Your task to perform on an android device: Add macbook pro to the cart on amazon.com Image 0: 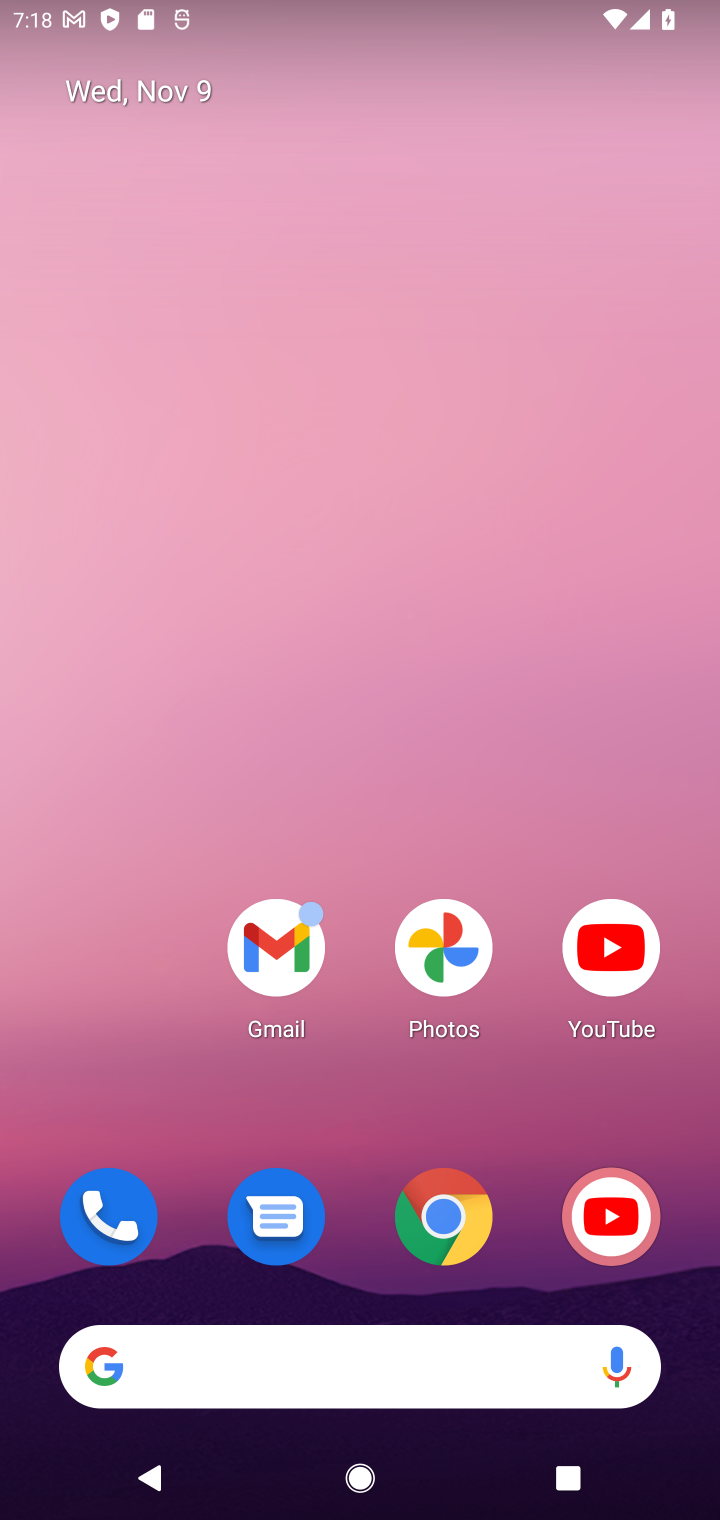
Step 0: drag from (351, 1144) to (370, 133)
Your task to perform on an android device: Add macbook pro to the cart on amazon.com Image 1: 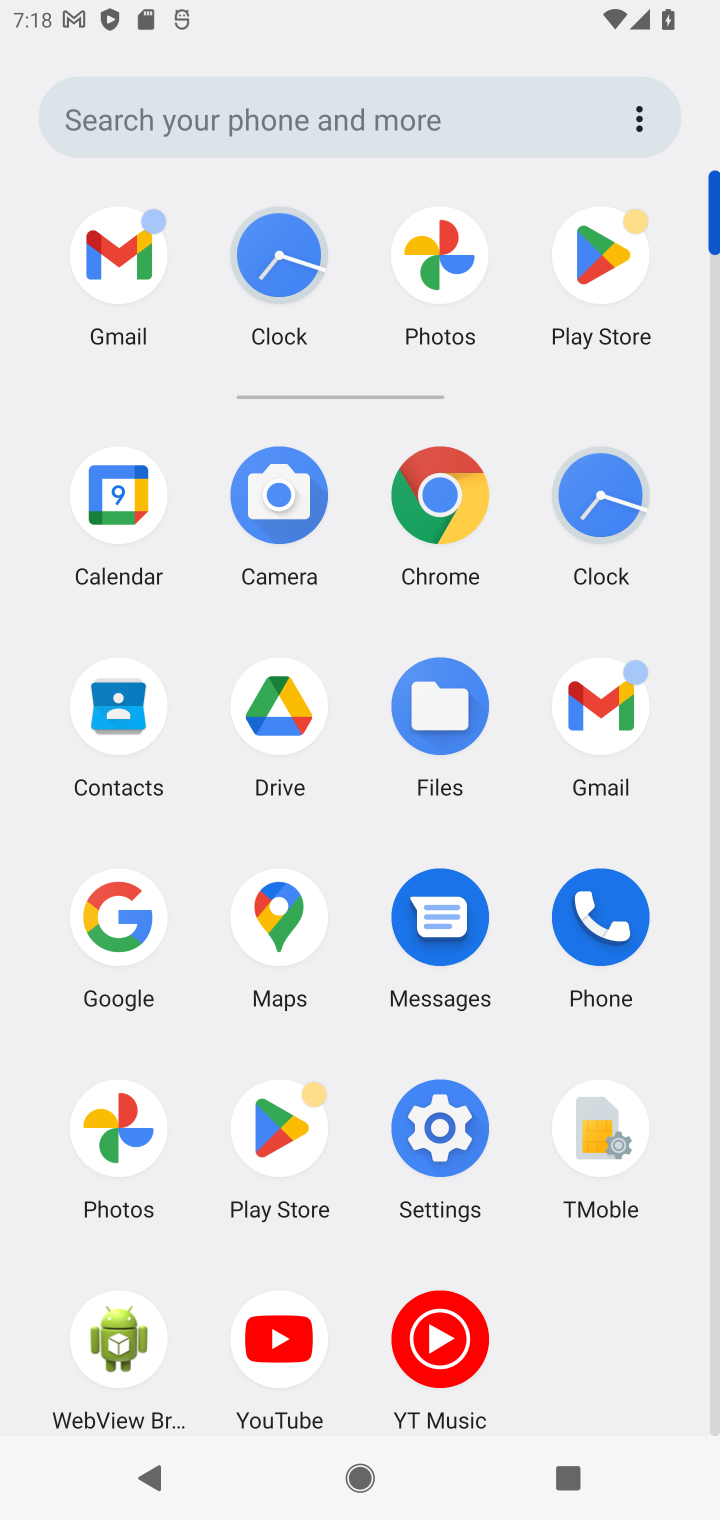
Step 1: click (454, 500)
Your task to perform on an android device: Add macbook pro to the cart on amazon.com Image 2: 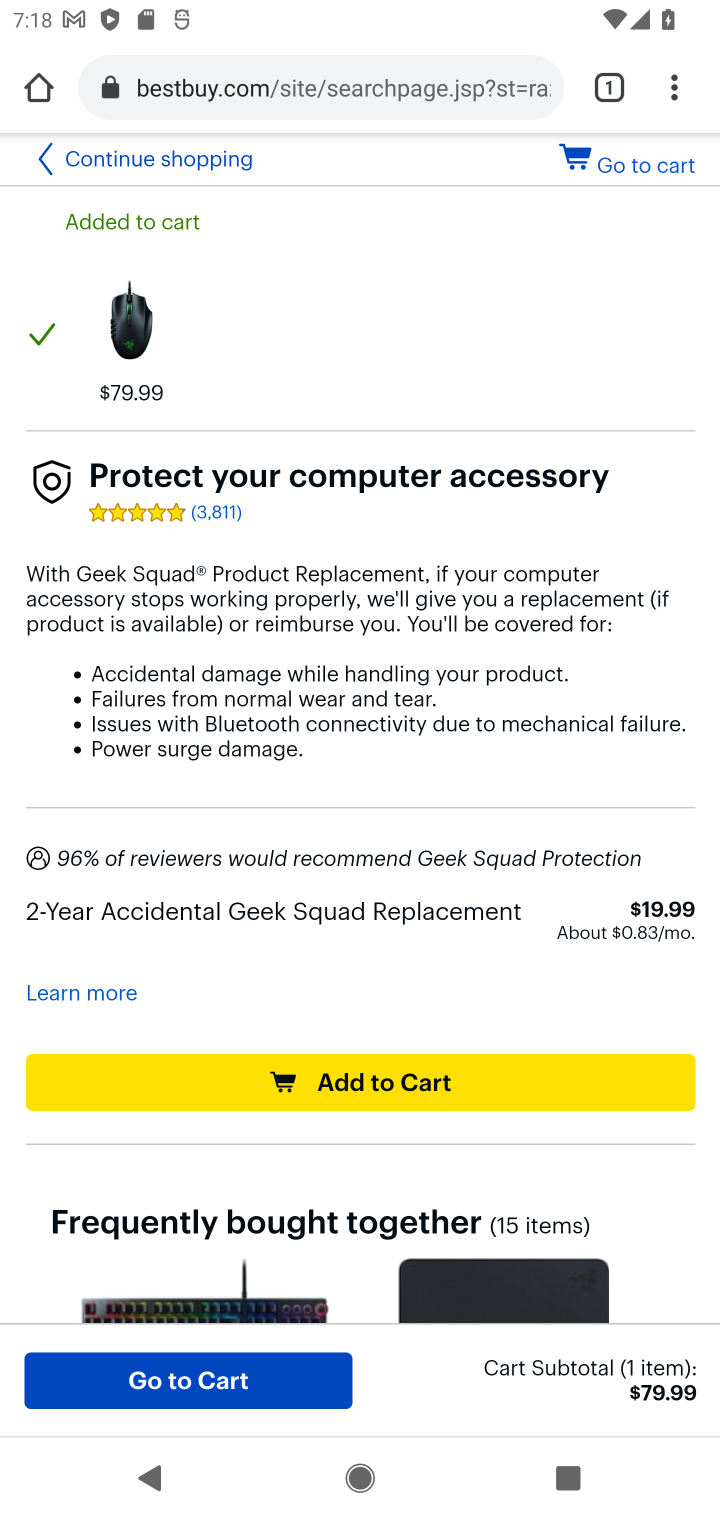
Step 2: click (355, 79)
Your task to perform on an android device: Add macbook pro to the cart on amazon.com Image 3: 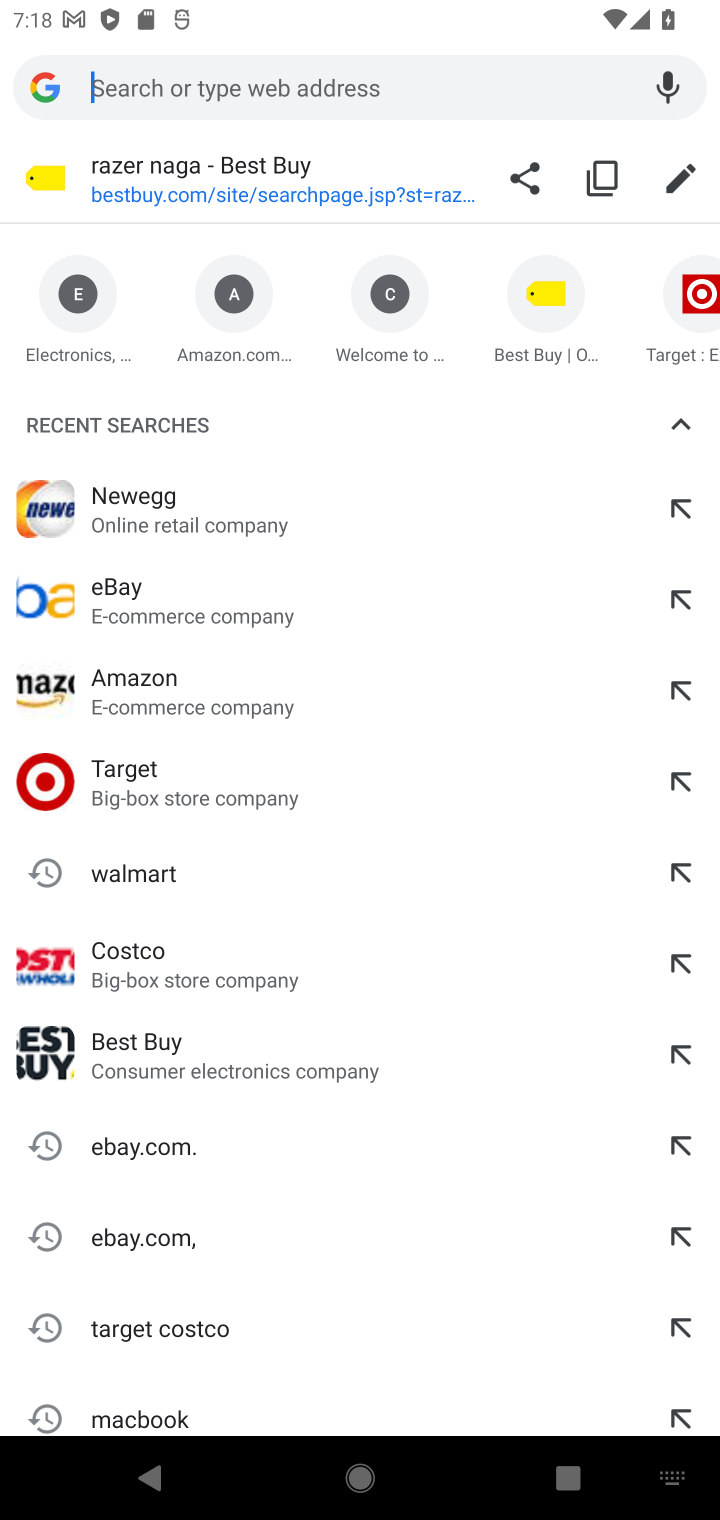
Step 3: type "amazon.com"
Your task to perform on an android device: Add macbook pro to the cart on amazon.com Image 4: 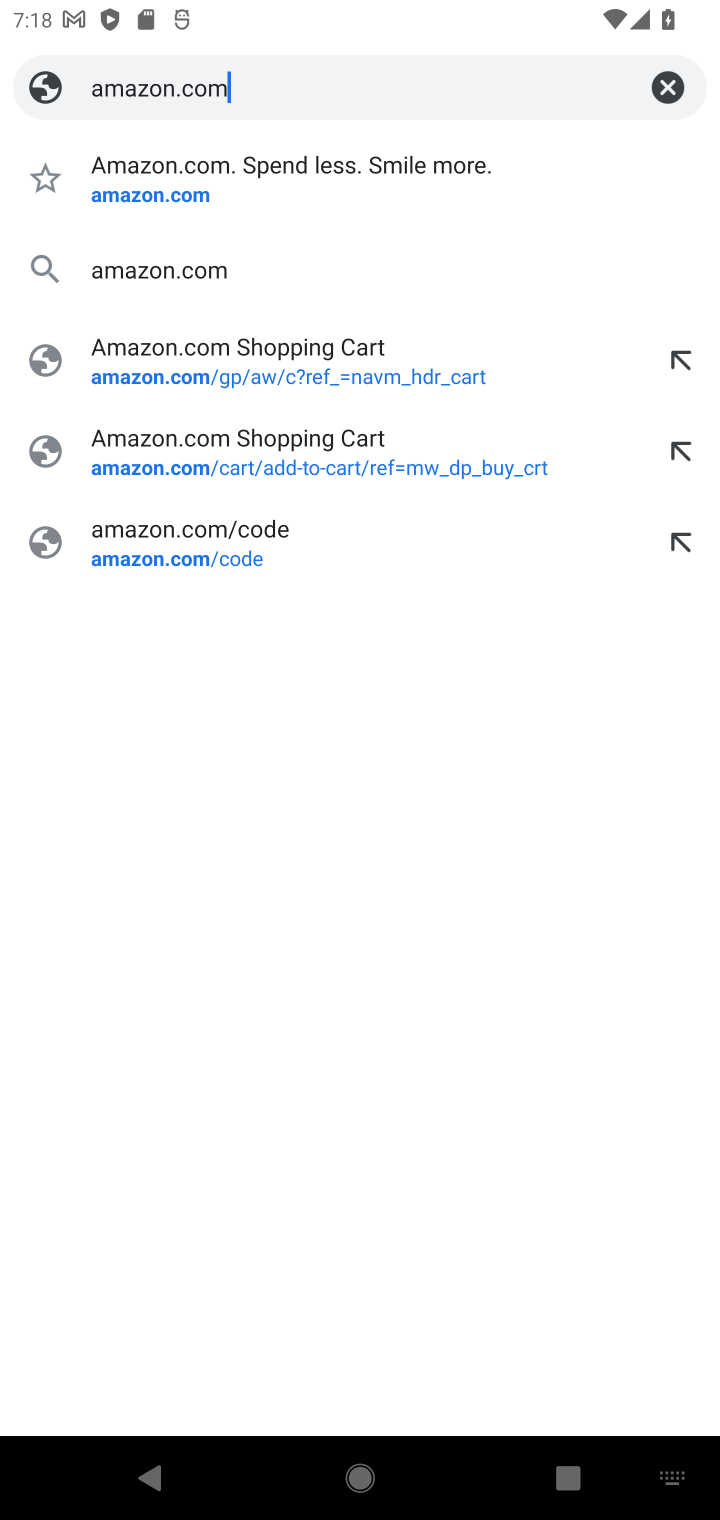
Step 4: press enter
Your task to perform on an android device: Add macbook pro to the cart on amazon.com Image 5: 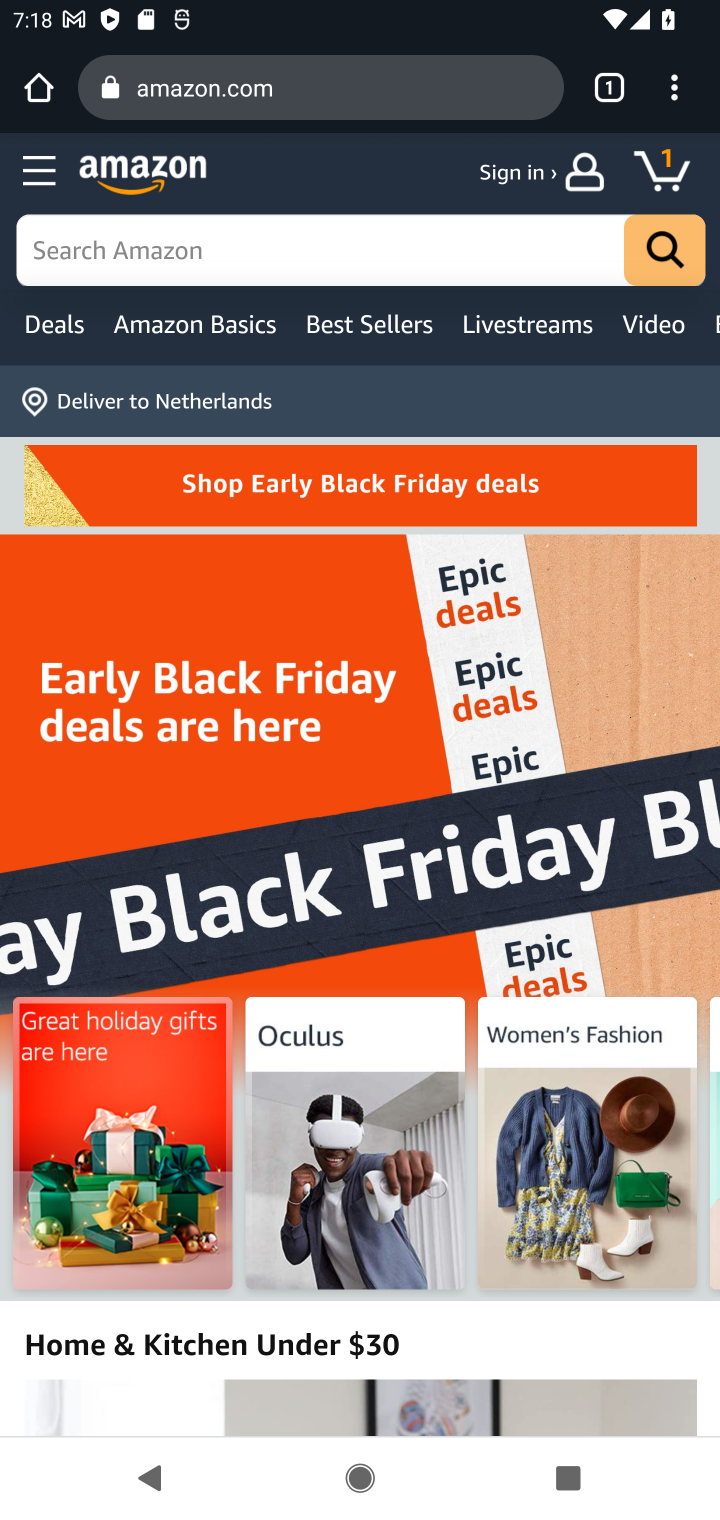
Step 5: click (424, 244)
Your task to perform on an android device: Add macbook pro to the cart on amazon.com Image 6: 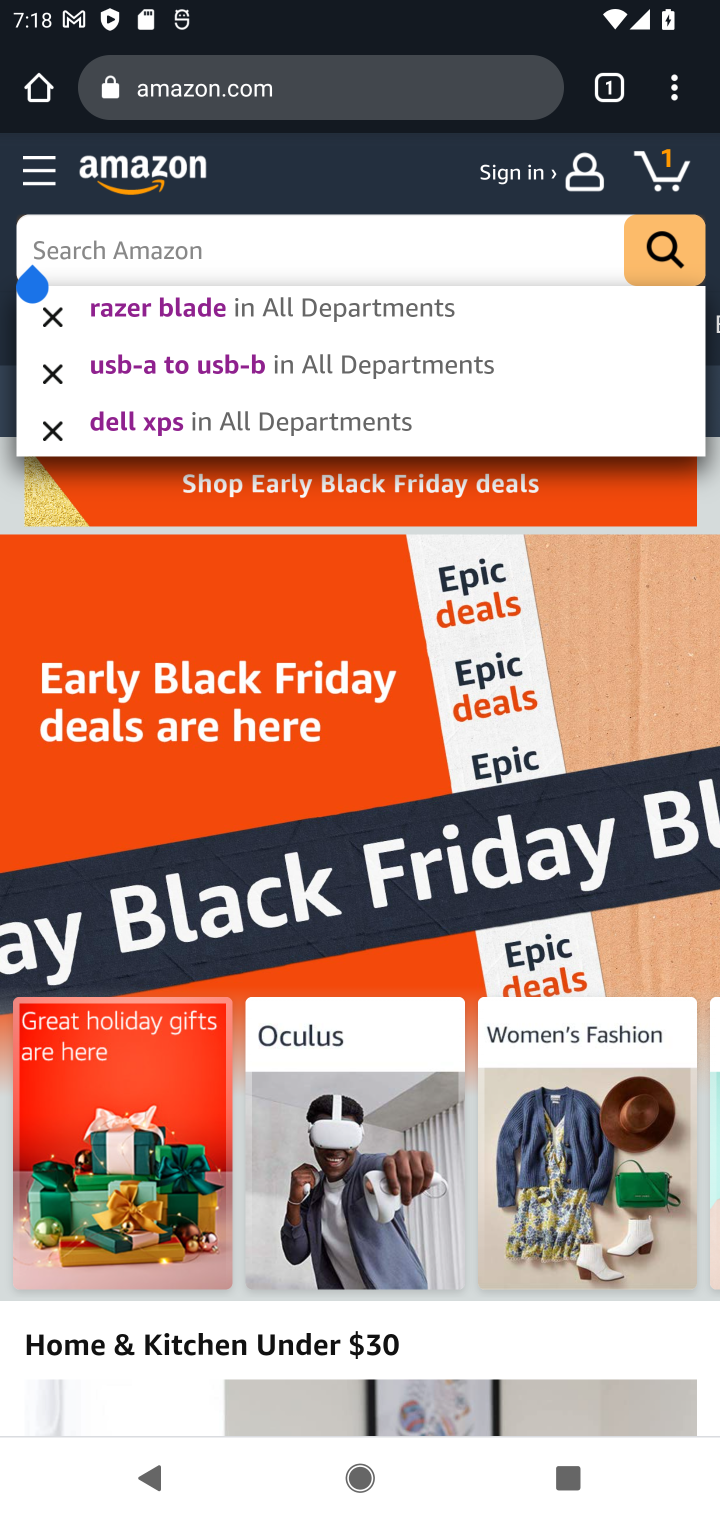
Step 6: type "macbook pro"
Your task to perform on an android device: Add macbook pro to the cart on amazon.com Image 7: 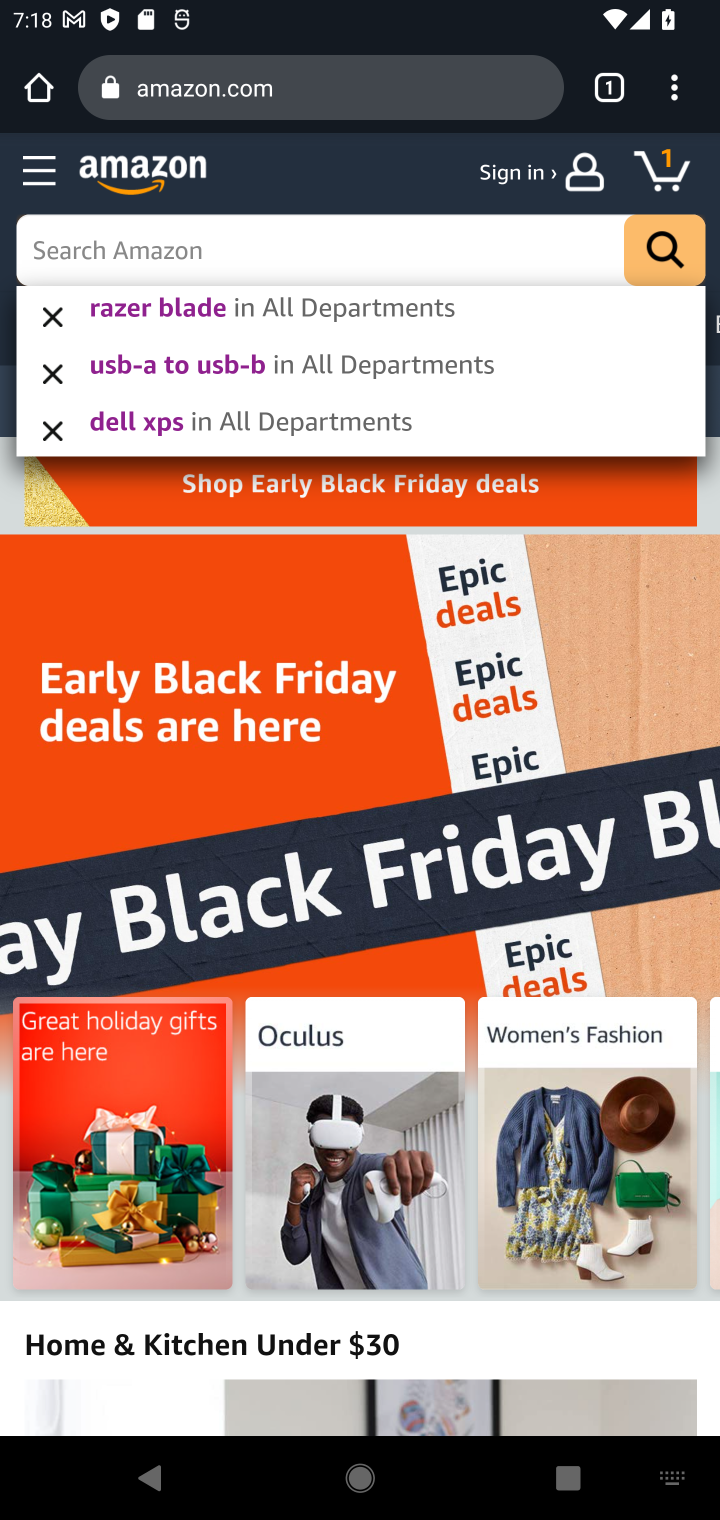
Step 7: press enter
Your task to perform on an android device: Add macbook pro to the cart on amazon.com Image 8: 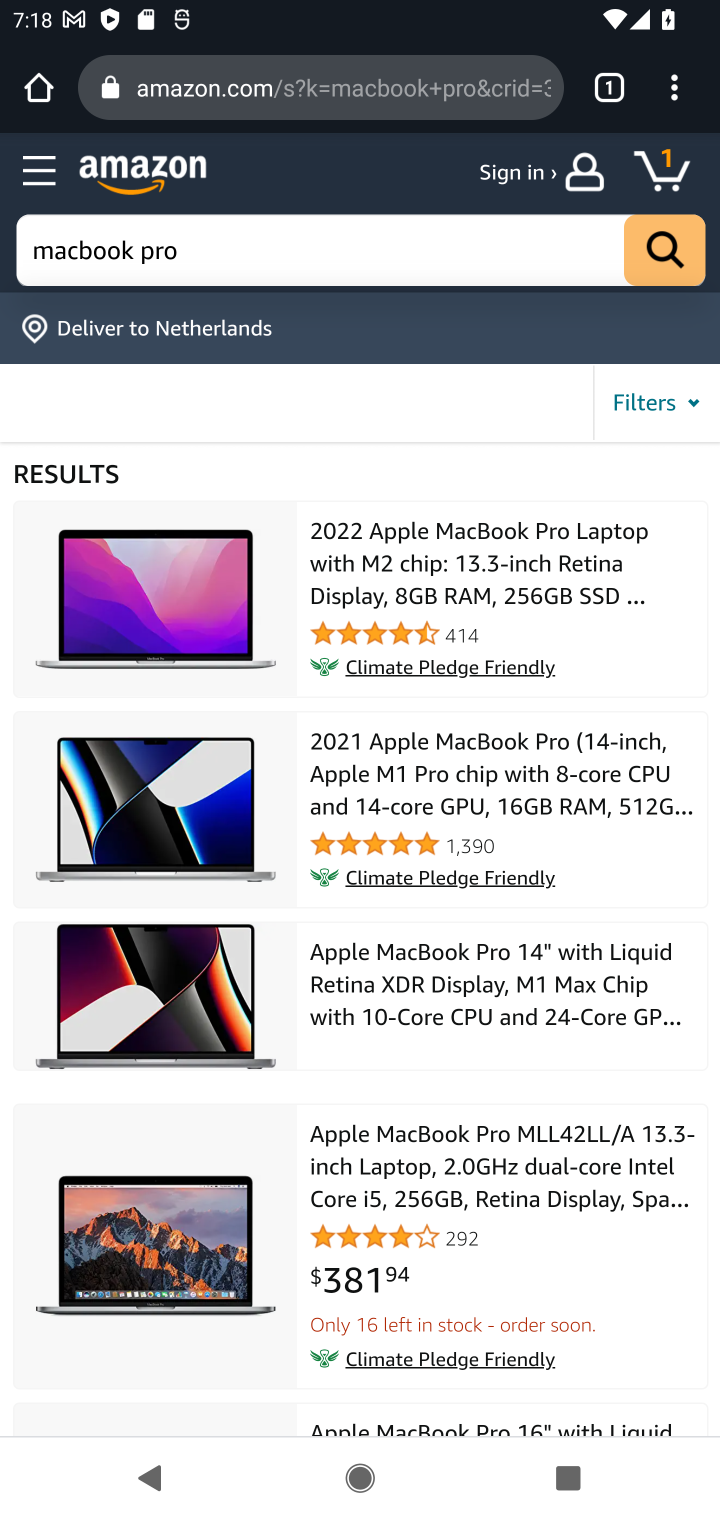
Step 8: click (524, 560)
Your task to perform on an android device: Add macbook pro to the cart on amazon.com Image 9: 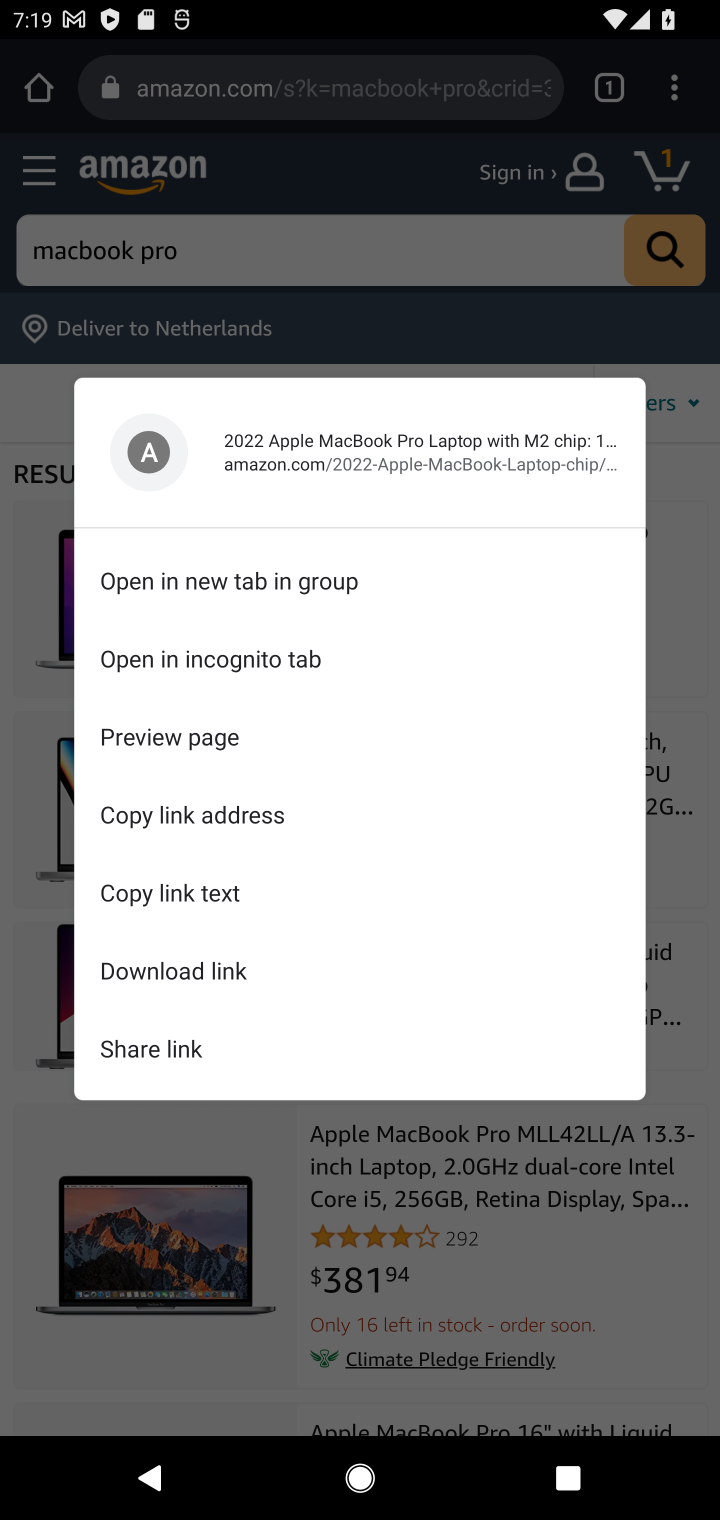
Step 9: click (671, 533)
Your task to perform on an android device: Add macbook pro to the cart on amazon.com Image 10: 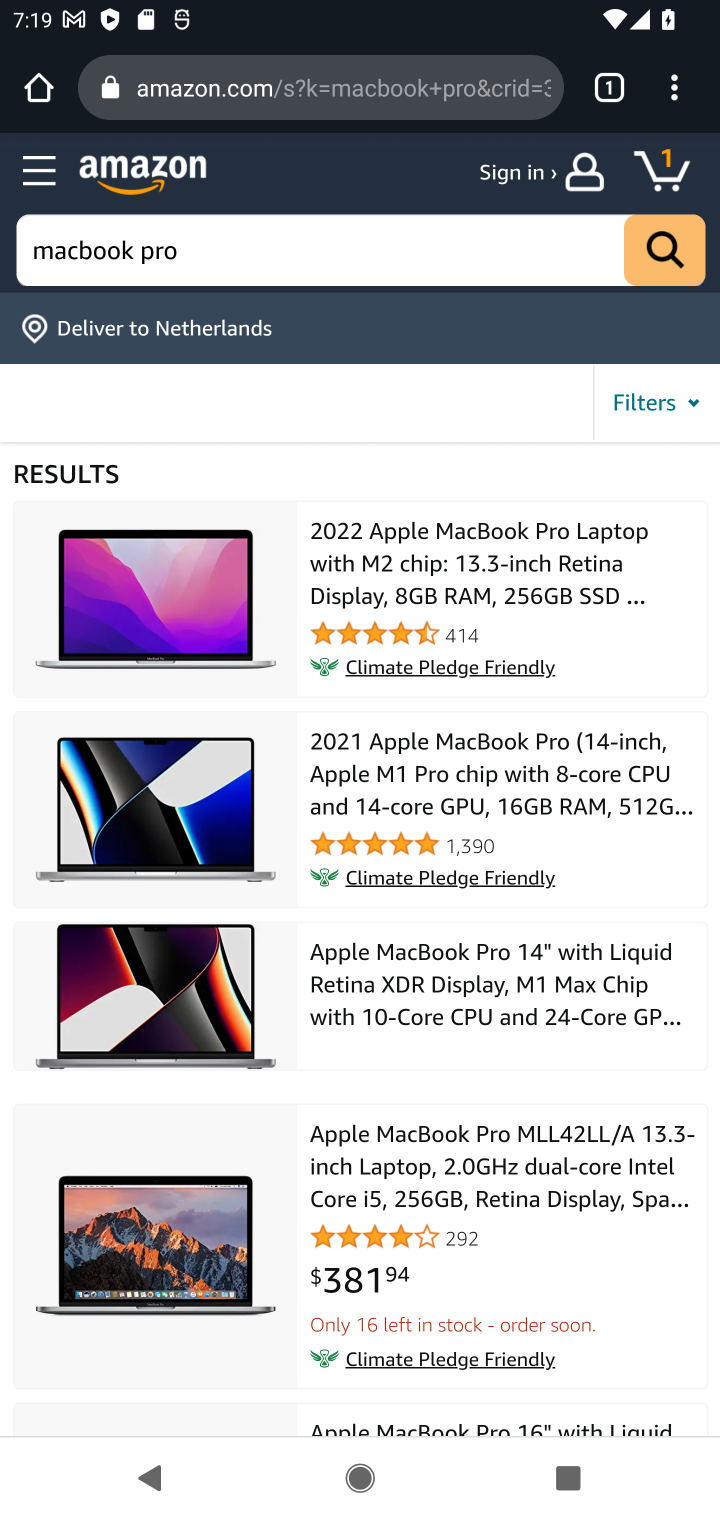
Step 10: click (386, 567)
Your task to perform on an android device: Add macbook pro to the cart on amazon.com Image 11: 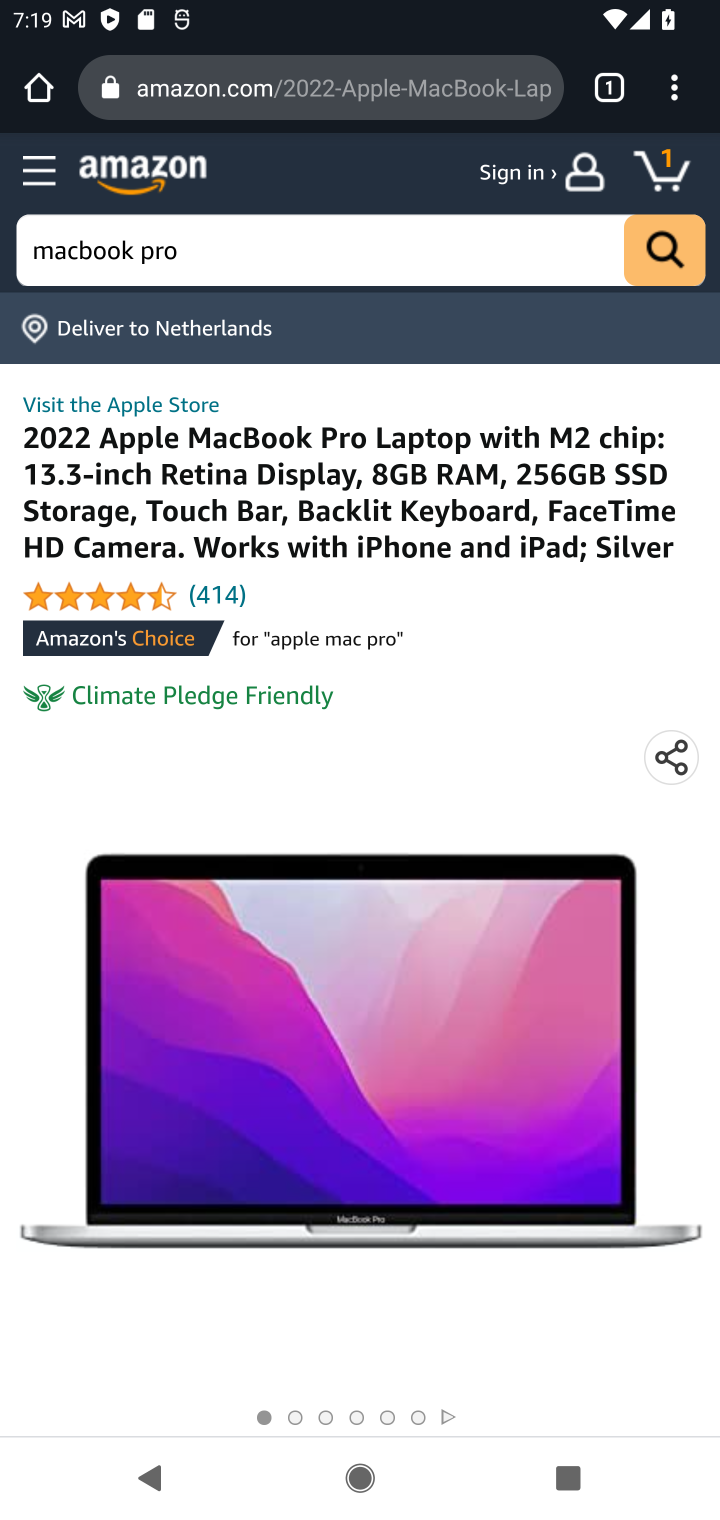
Step 11: drag from (436, 855) to (374, 236)
Your task to perform on an android device: Add macbook pro to the cart on amazon.com Image 12: 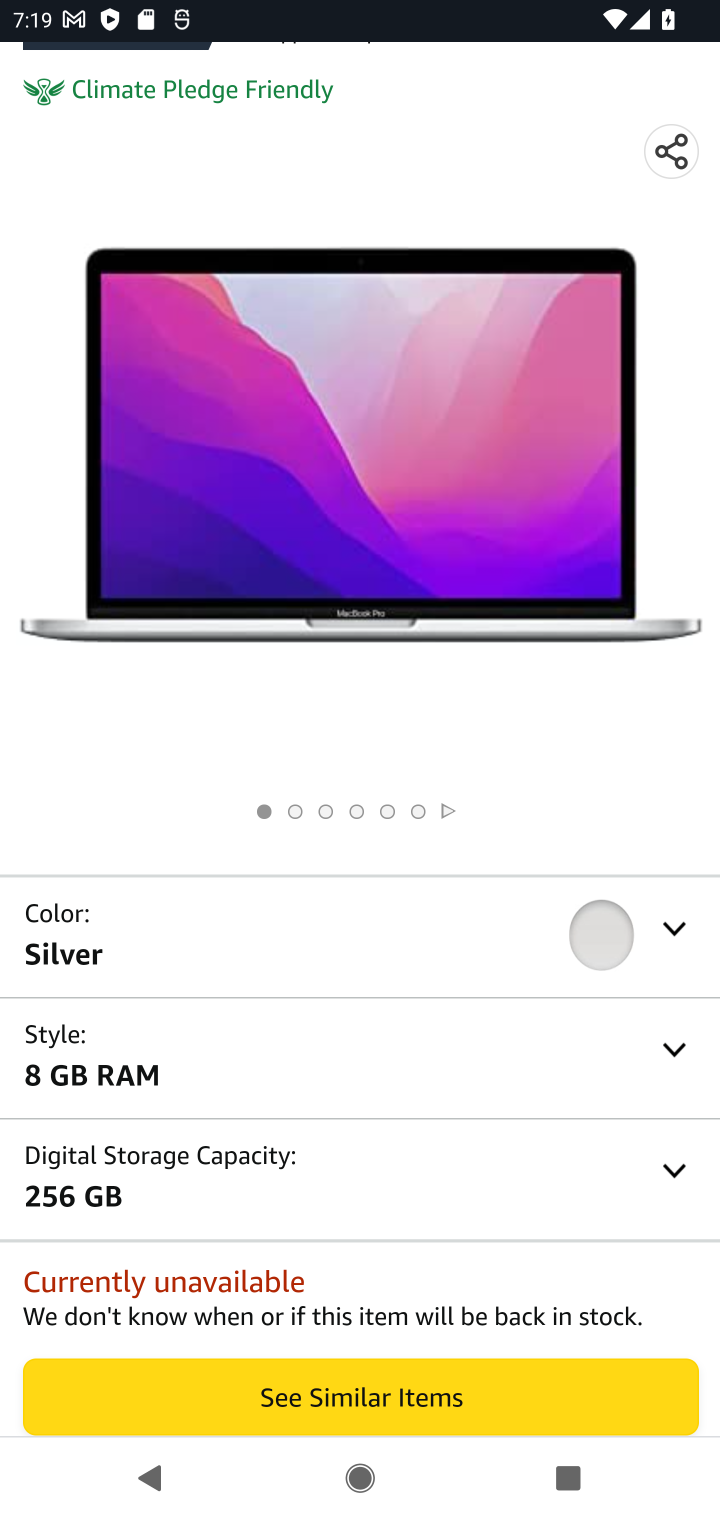
Step 12: drag from (434, 861) to (350, 532)
Your task to perform on an android device: Add macbook pro to the cart on amazon.com Image 13: 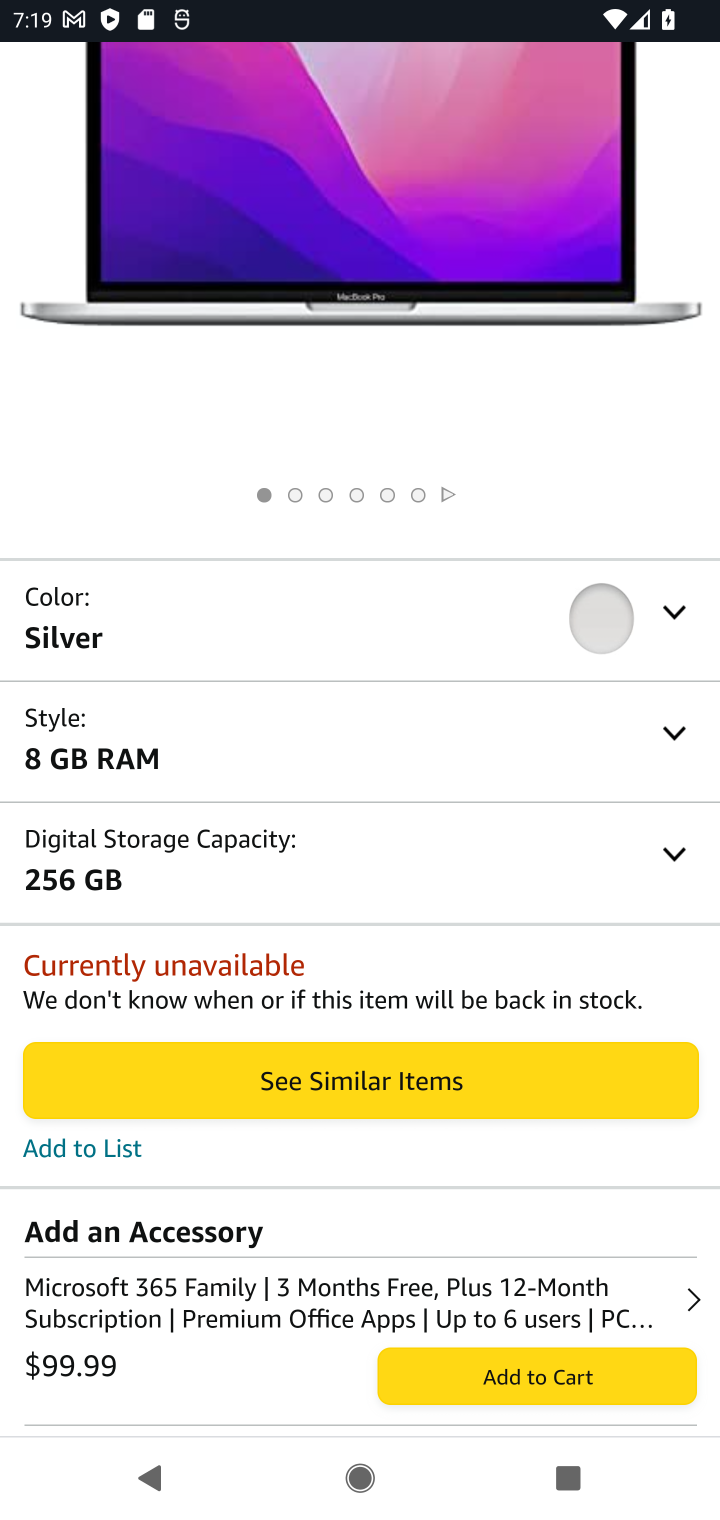
Step 13: click (581, 1408)
Your task to perform on an android device: Add macbook pro to the cart on amazon.com Image 14: 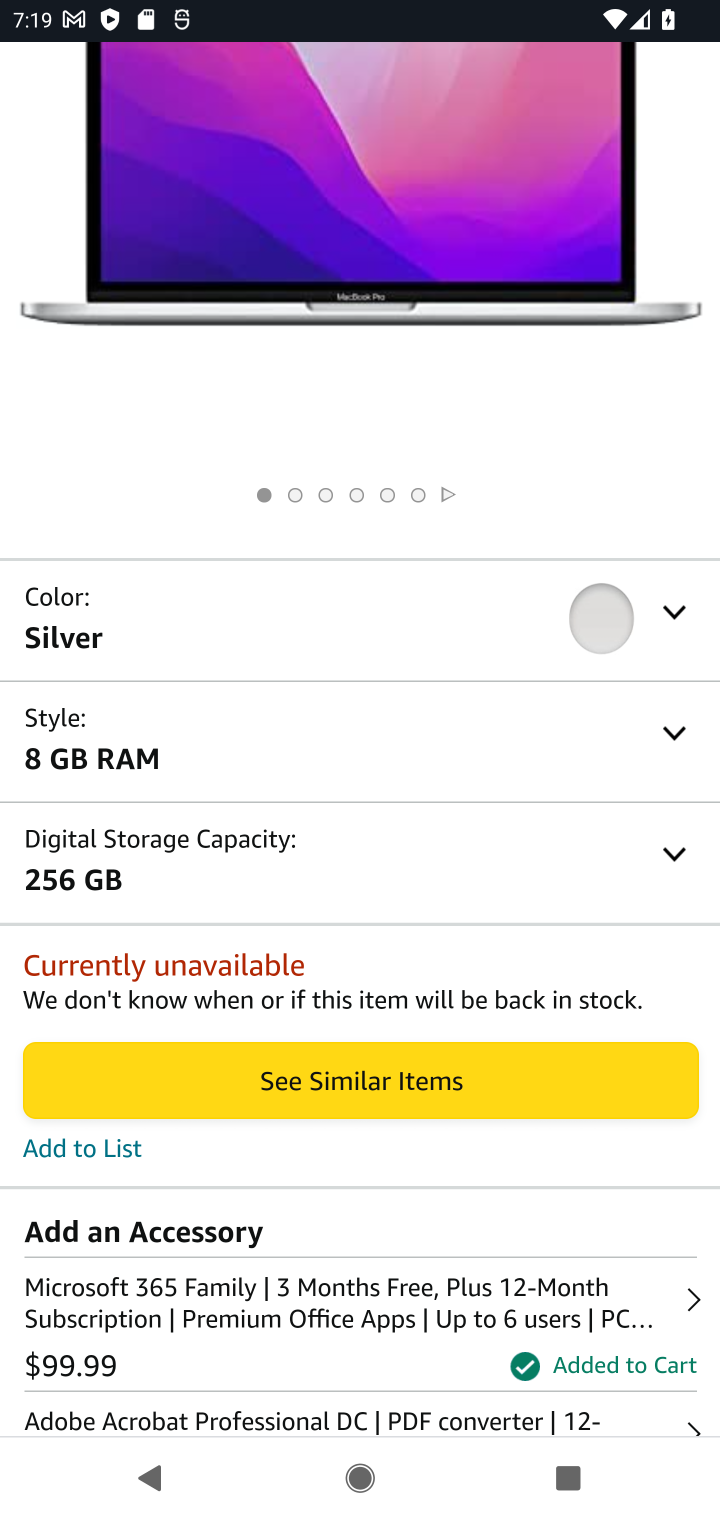
Step 14: task complete